Your task to perform on an android device: Open network settings Image 0: 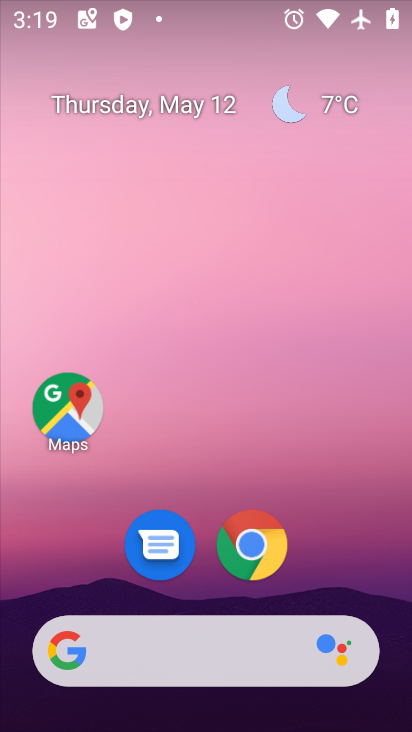
Step 0: drag from (381, 640) to (252, 32)
Your task to perform on an android device: Open network settings Image 1: 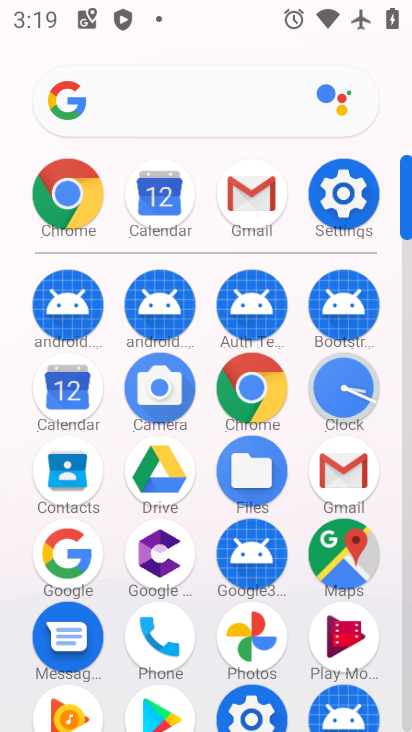
Step 1: click (410, 694)
Your task to perform on an android device: Open network settings Image 2: 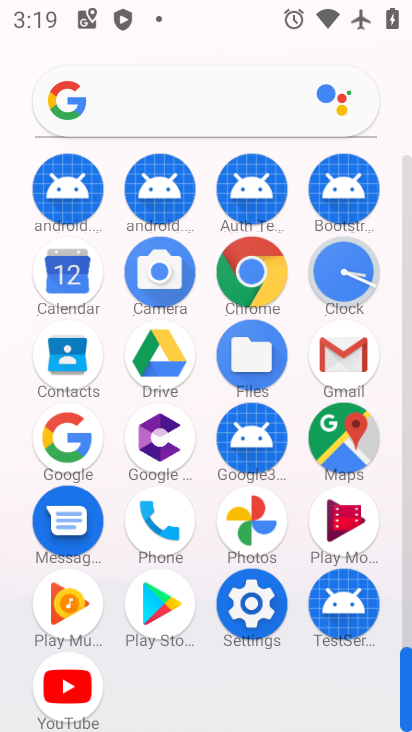
Step 2: click (249, 609)
Your task to perform on an android device: Open network settings Image 3: 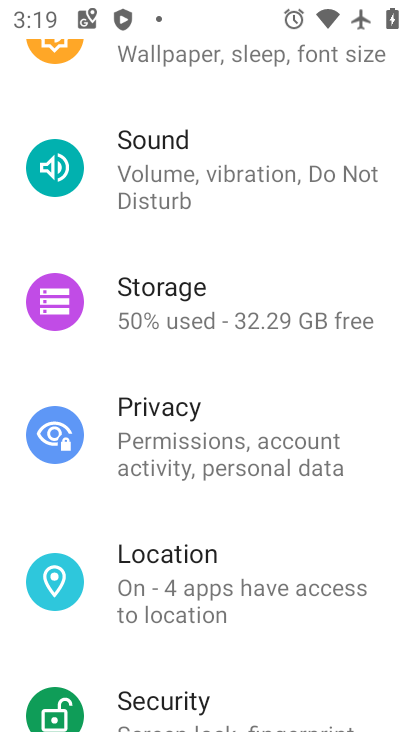
Step 3: drag from (384, 268) to (319, 585)
Your task to perform on an android device: Open network settings Image 4: 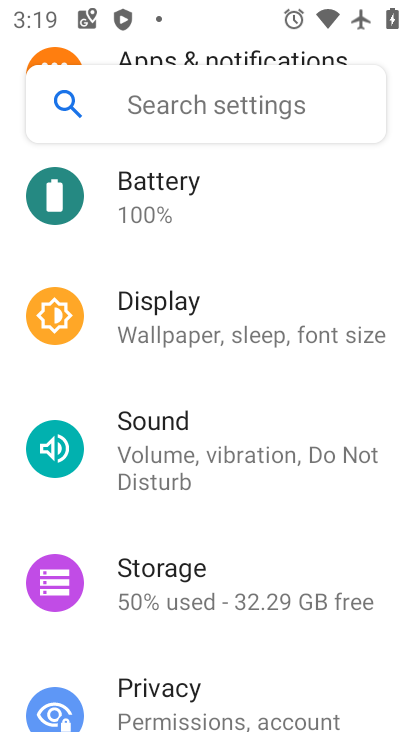
Step 4: drag from (349, 210) to (341, 661)
Your task to perform on an android device: Open network settings Image 5: 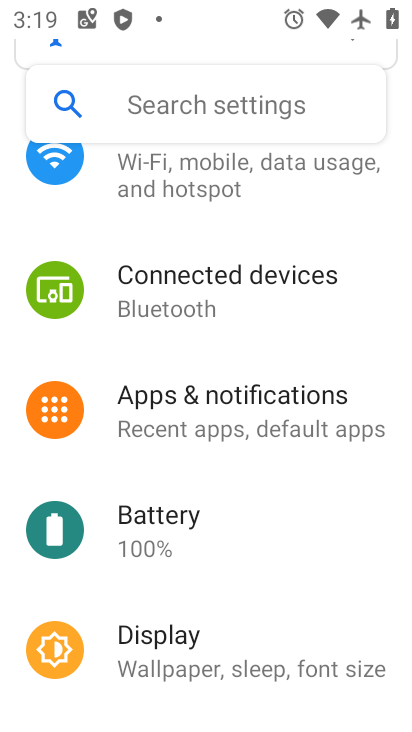
Step 5: drag from (331, 258) to (343, 584)
Your task to perform on an android device: Open network settings Image 6: 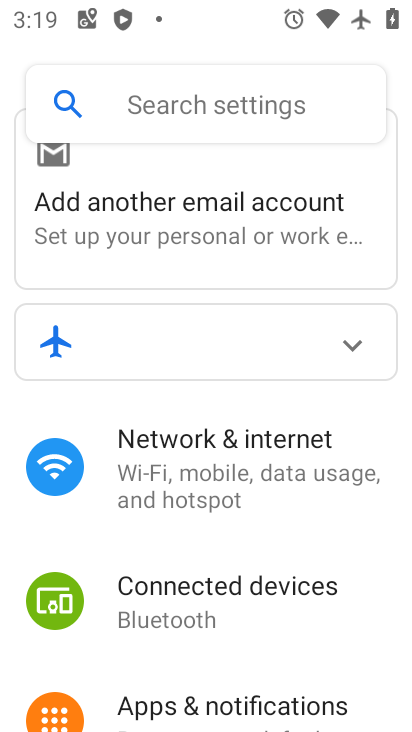
Step 6: click (168, 442)
Your task to perform on an android device: Open network settings Image 7: 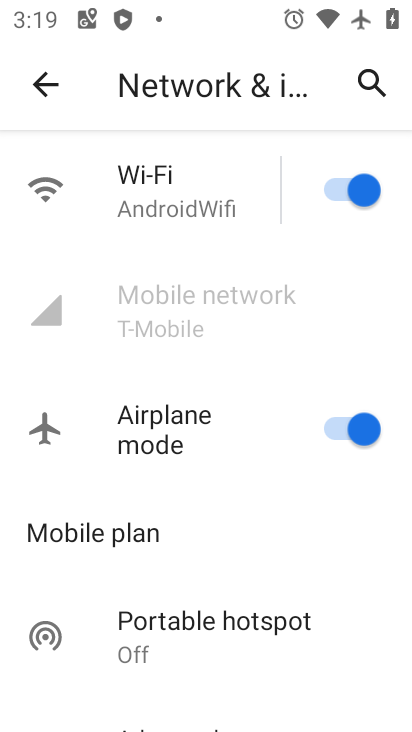
Step 7: drag from (104, 589) to (225, 232)
Your task to perform on an android device: Open network settings Image 8: 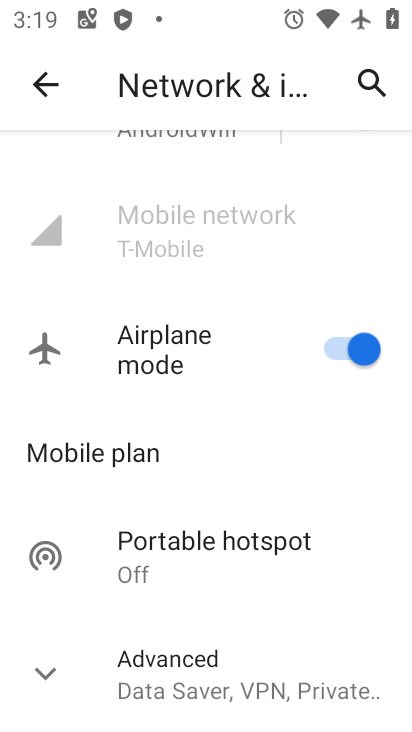
Step 8: click (43, 672)
Your task to perform on an android device: Open network settings Image 9: 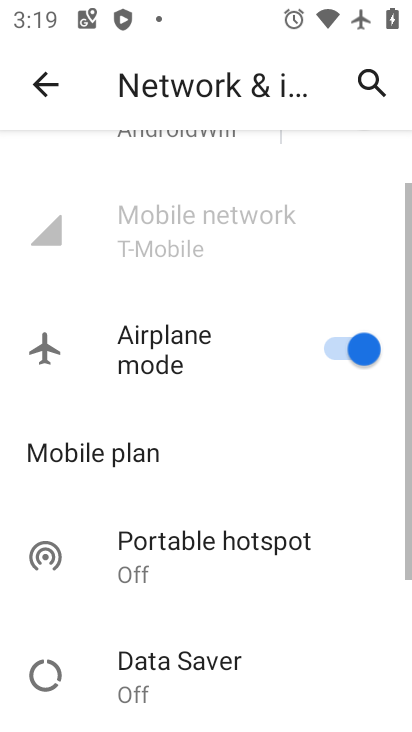
Step 9: task complete